Your task to perform on an android device: snooze an email in the gmail app Image 0: 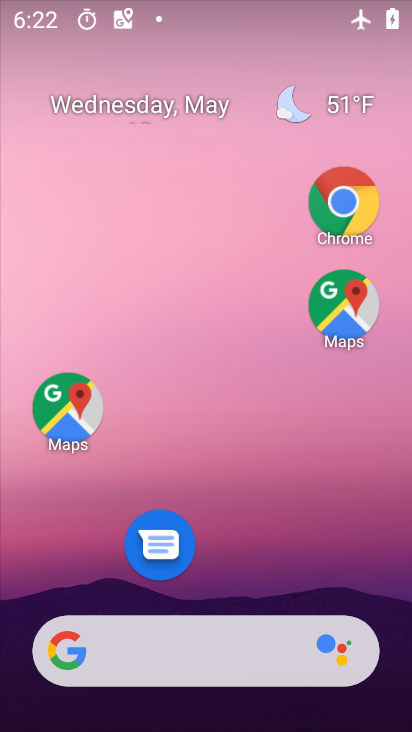
Step 0: drag from (302, 243) to (288, 150)
Your task to perform on an android device: snooze an email in the gmail app Image 1: 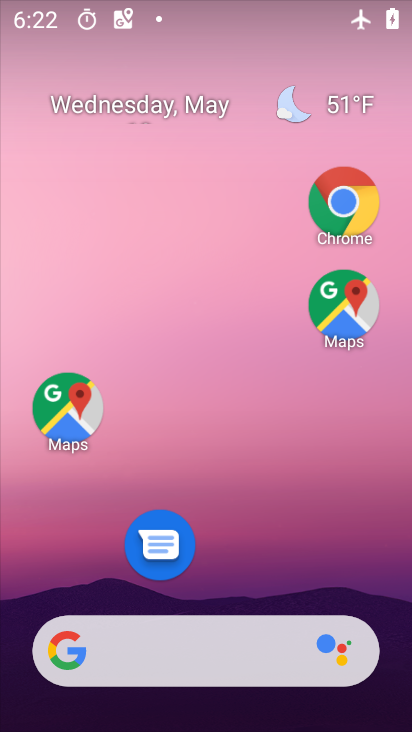
Step 1: drag from (231, 548) to (236, 94)
Your task to perform on an android device: snooze an email in the gmail app Image 2: 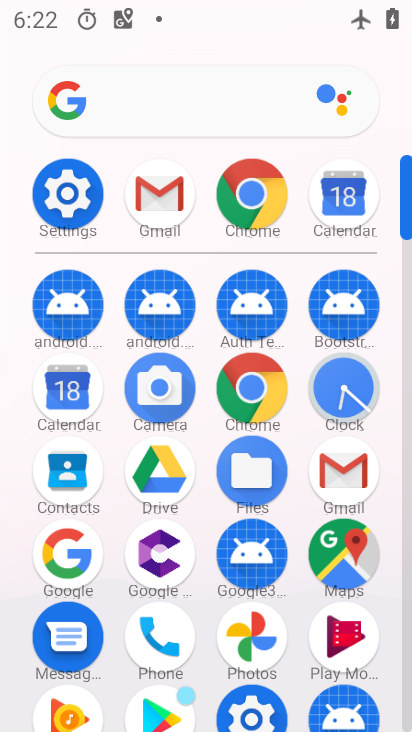
Step 2: click (143, 194)
Your task to perform on an android device: snooze an email in the gmail app Image 3: 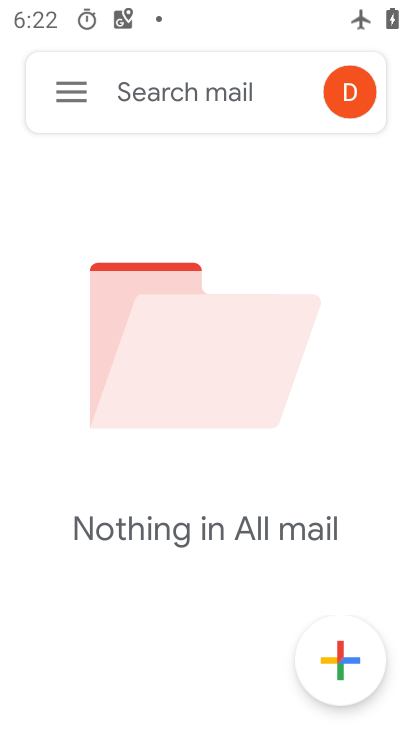
Step 3: click (80, 92)
Your task to perform on an android device: snooze an email in the gmail app Image 4: 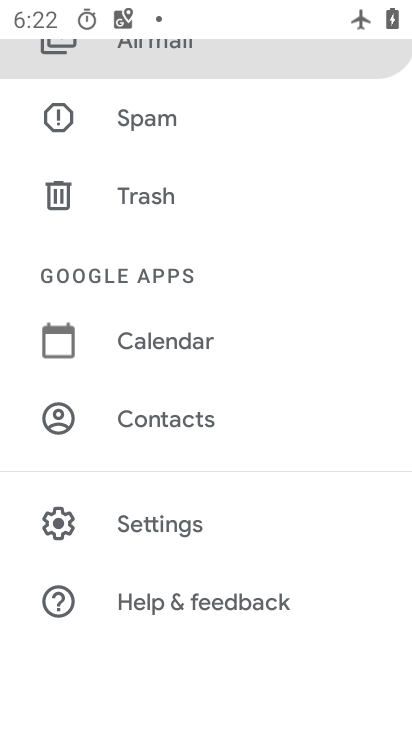
Step 4: task complete